Your task to perform on an android device: Search for Mexican restaurants on Maps Image 0: 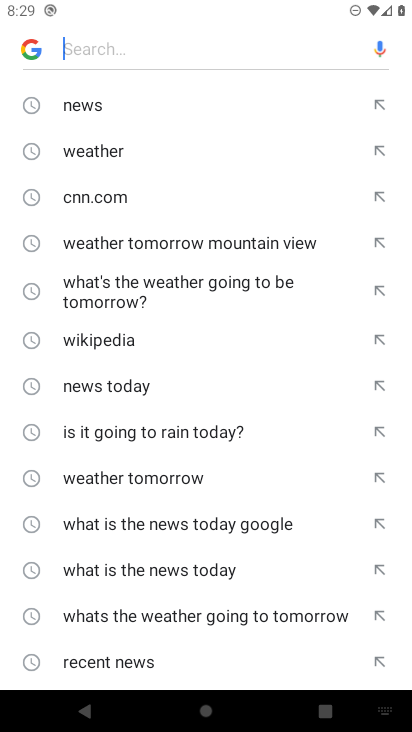
Step 0: press home button
Your task to perform on an android device: Search for Mexican restaurants on Maps Image 1: 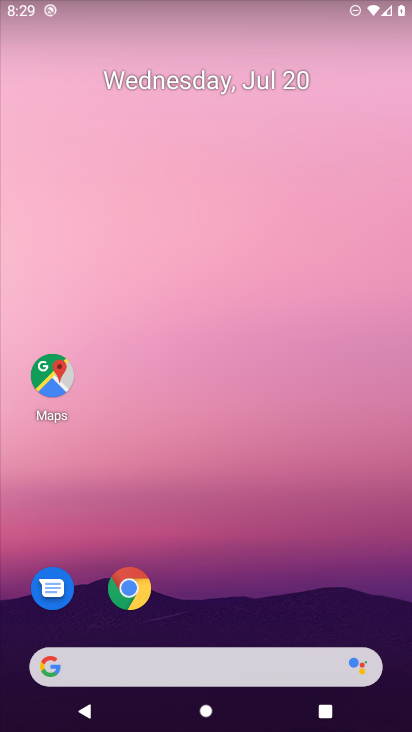
Step 1: click (54, 385)
Your task to perform on an android device: Search for Mexican restaurants on Maps Image 2: 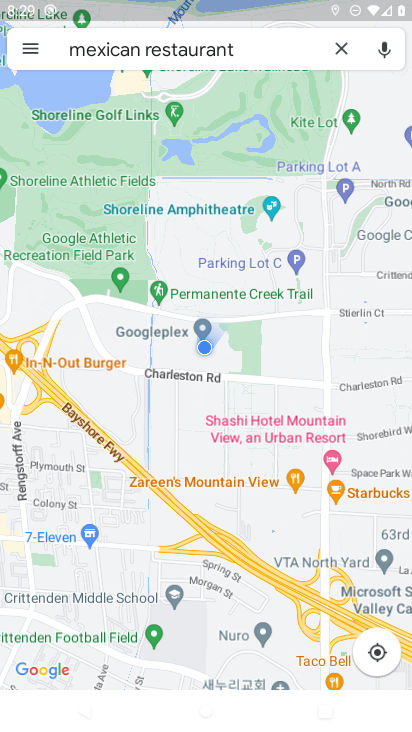
Step 2: task complete